Your task to perform on an android device: toggle location history Image 0: 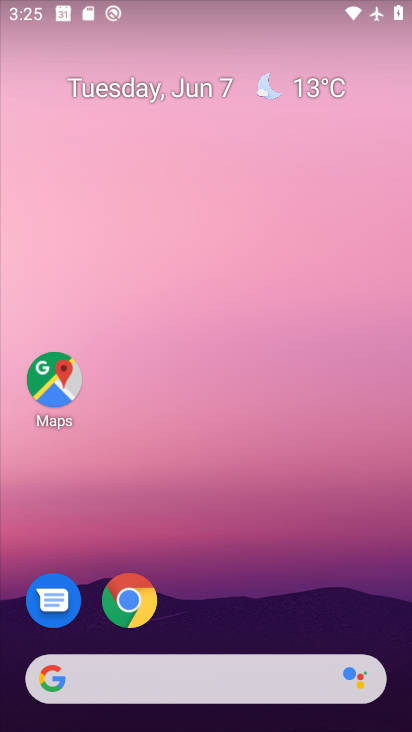
Step 0: drag from (270, 366) to (244, 38)
Your task to perform on an android device: toggle location history Image 1: 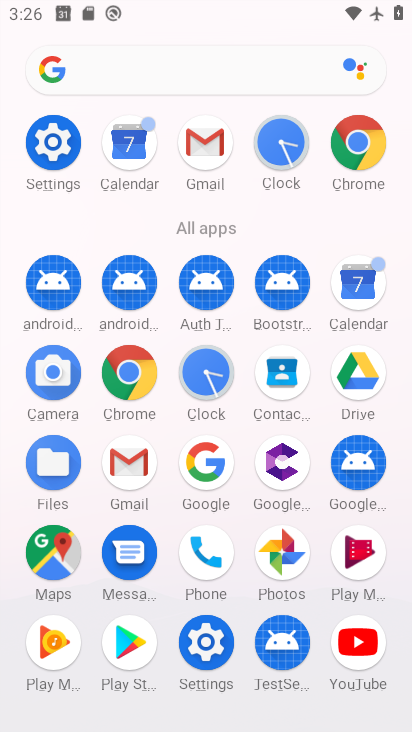
Step 1: click (59, 140)
Your task to perform on an android device: toggle location history Image 2: 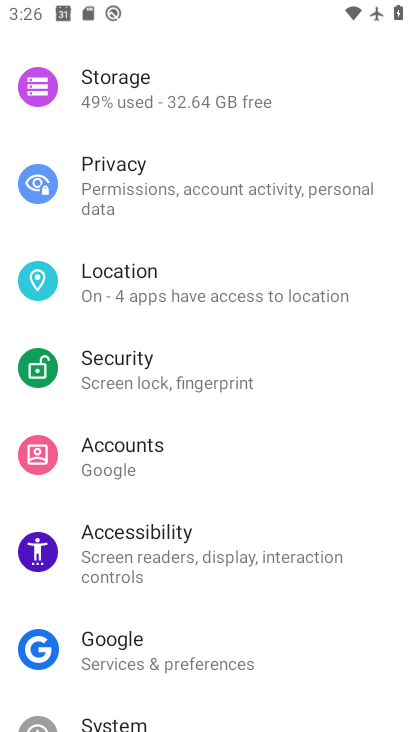
Step 2: drag from (261, 568) to (3, 76)
Your task to perform on an android device: toggle location history Image 3: 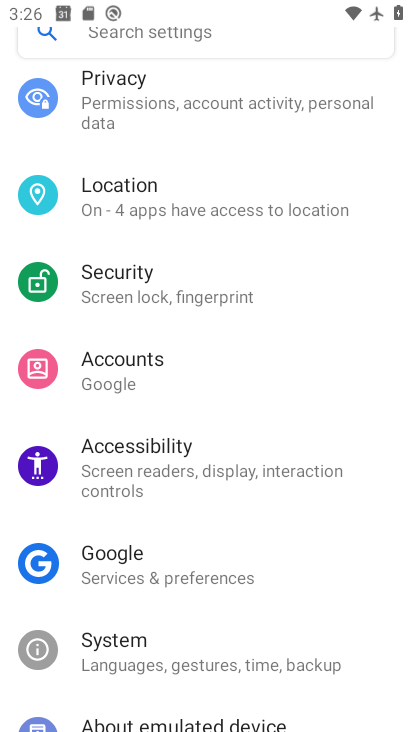
Step 3: click (230, 187)
Your task to perform on an android device: toggle location history Image 4: 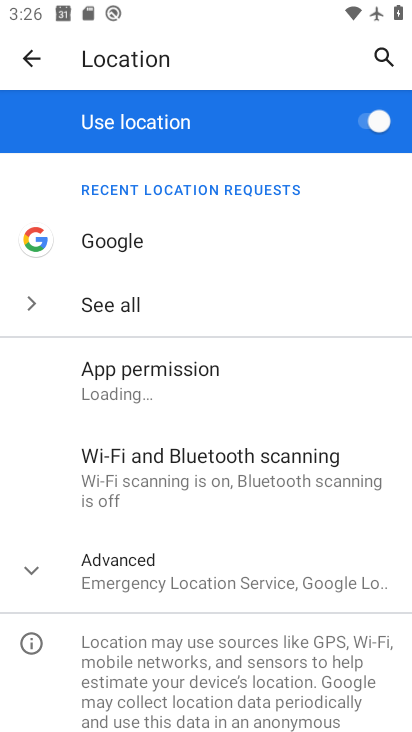
Step 4: click (160, 571)
Your task to perform on an android device: toggle location history Image 5: 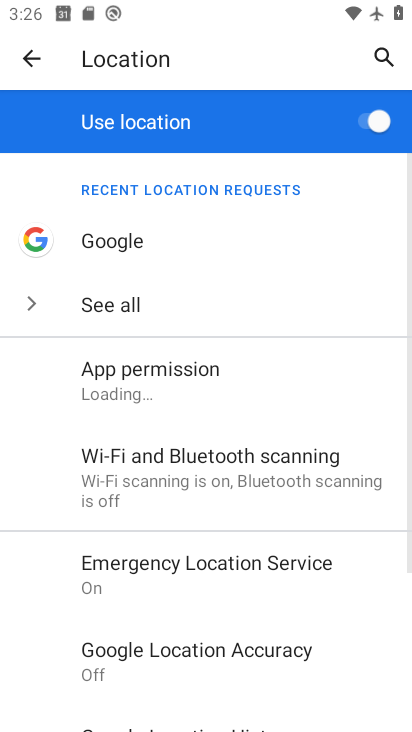
Step 5: drag from (283, 683) to (237, 201)
Your task to perform on an android device: toggle location history Image 6: 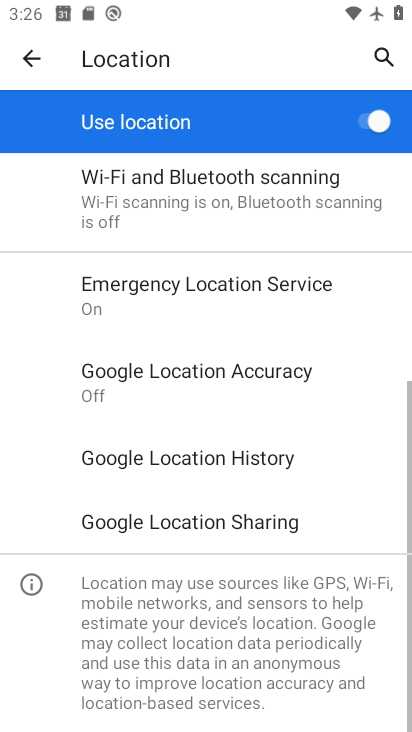
Step 6: click (260, 470)
Your task to perform on an android device: toggle location history Image 7: 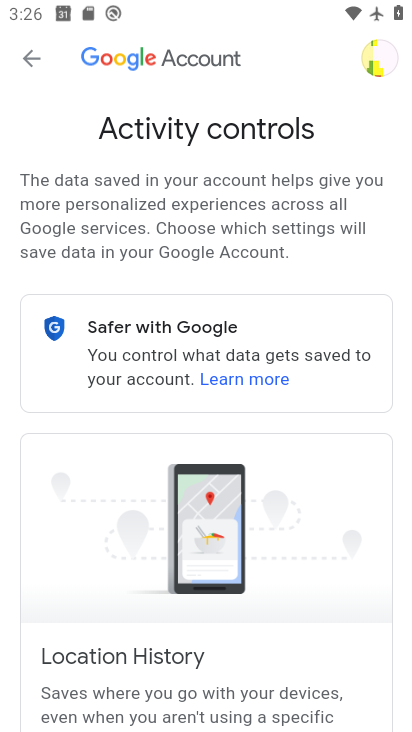
Step 7: drag from (211, 599) to (218, 77)
Your task to perform on an android device: toggle location history Image 8: 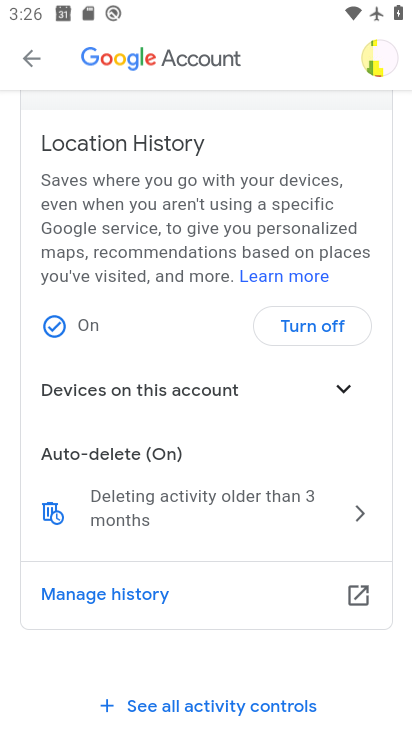
Step 8: click (306, 322)
Your task to perform on an android device: toggle location history Image 9: 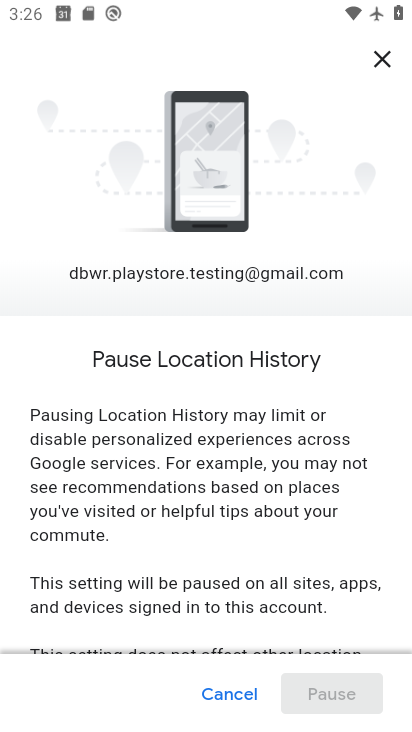
Step 9: drag from (252, 593) to (193, 173)
Your task to perform on an android device: toggle location history Image 10: 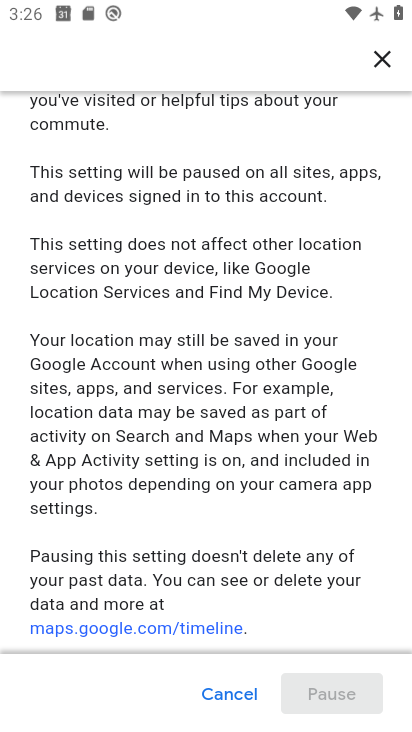
Step 10: drag from (231, 463) to (242, 135)
Your task to perform on an android device: toggle location history Image 11: 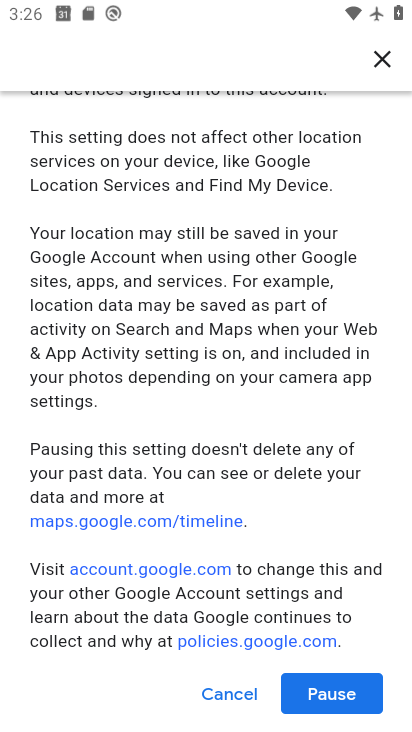
Step 11: click (310, 714)
Your task to perform on an android device: toggle location history Image 12: 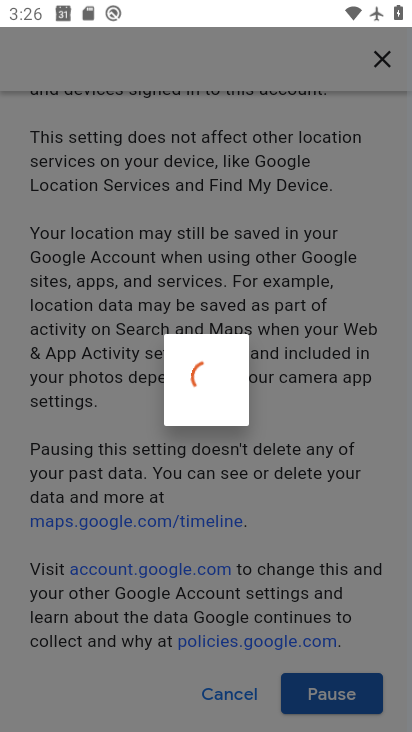
Step 12: click (322, 696)
Your task to perform on an android device: toggle location history Image 13: 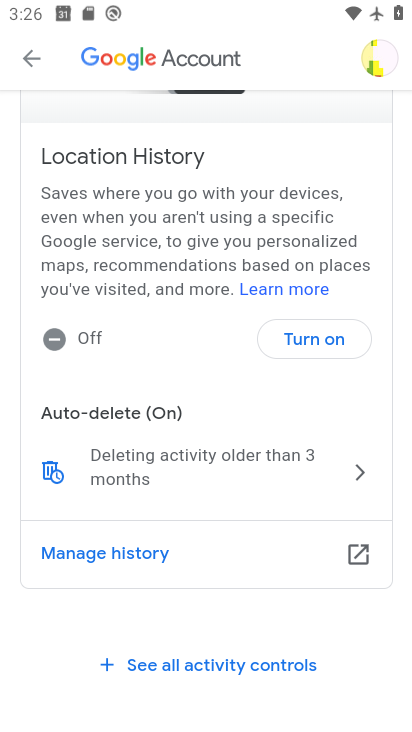
Step 13: task complete